Your task to perform on an android device: see creations saved in the google photos Image 0: 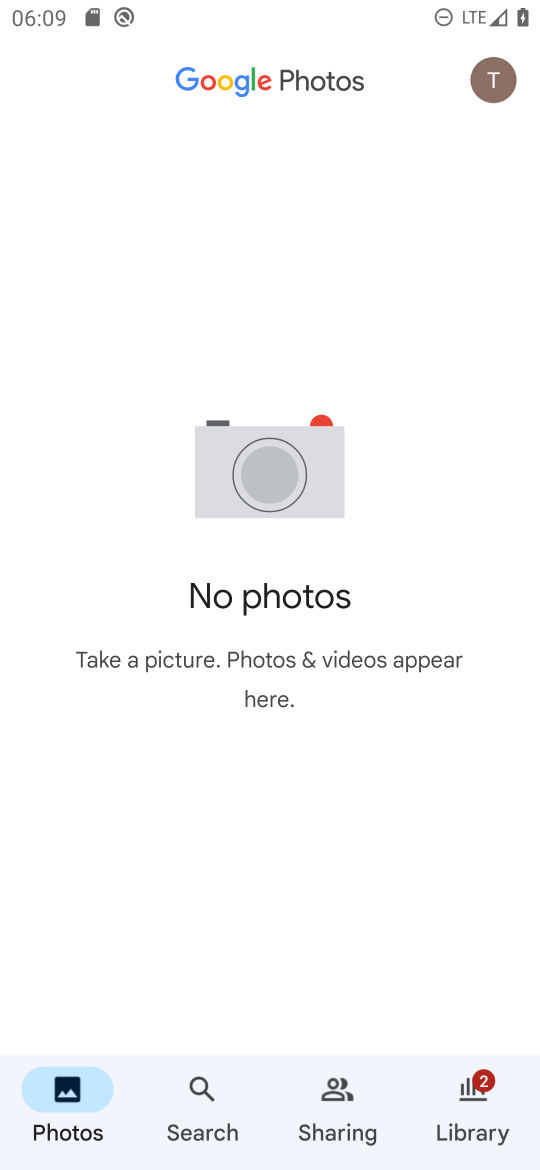
Step 0: press home button
Your task to perform on an android device: see creations saved in the google photos Image 1: 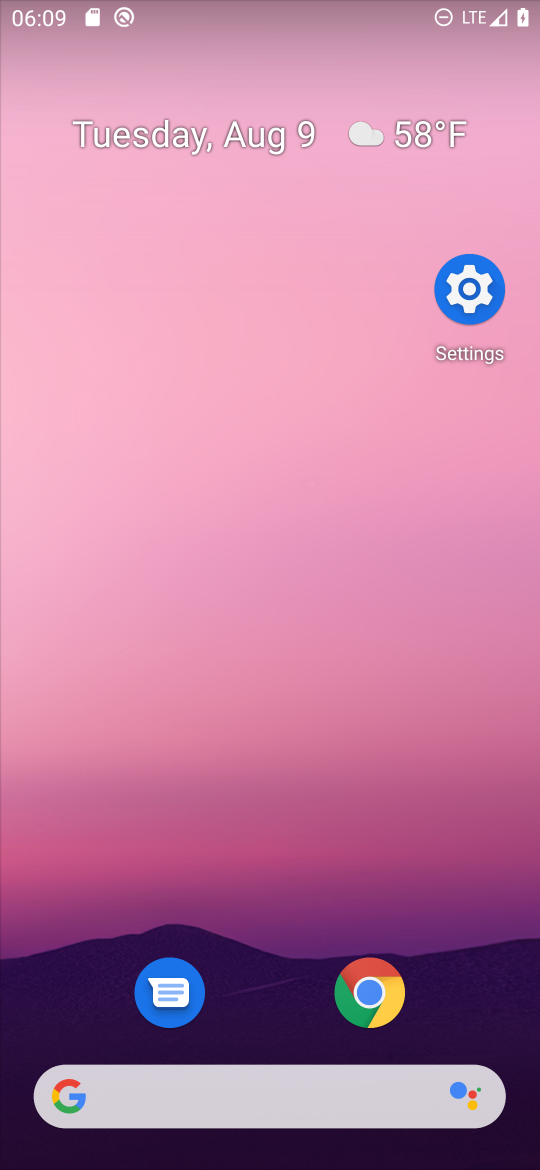
Step 1: drag from (202, 1062) to (295, 122)
Your task to perform on an android device: see creations saved in the google photos Image 2: 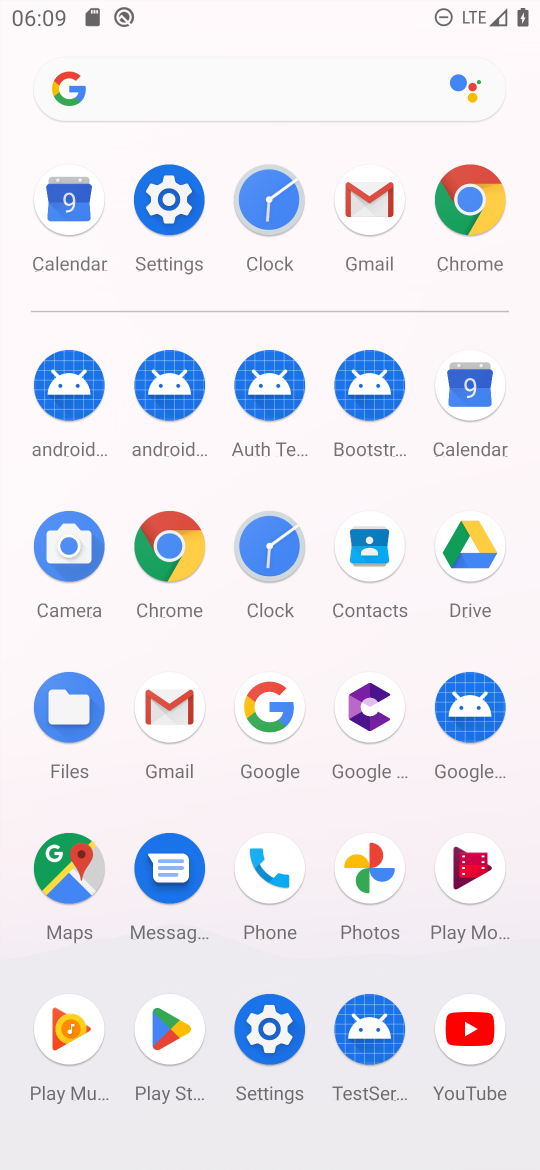
Step 2: click (374, 863)
Your task to perform on an android device: see creations saved in the google photos Image 3: 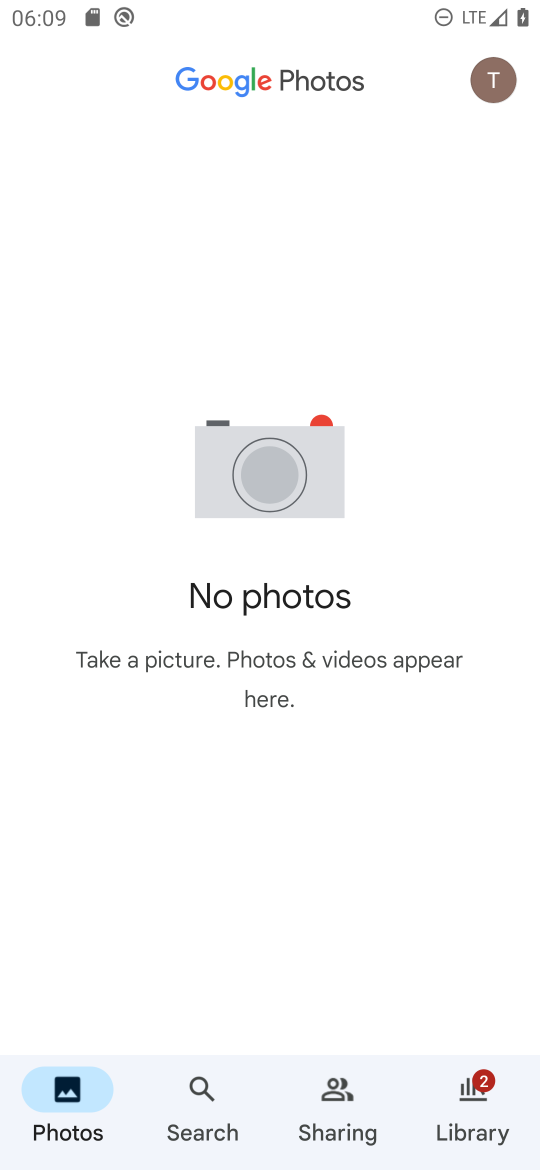
Step 3: click (477, 1108)
Your task to perform on an android device: see creations saved in the google photos Image 4: 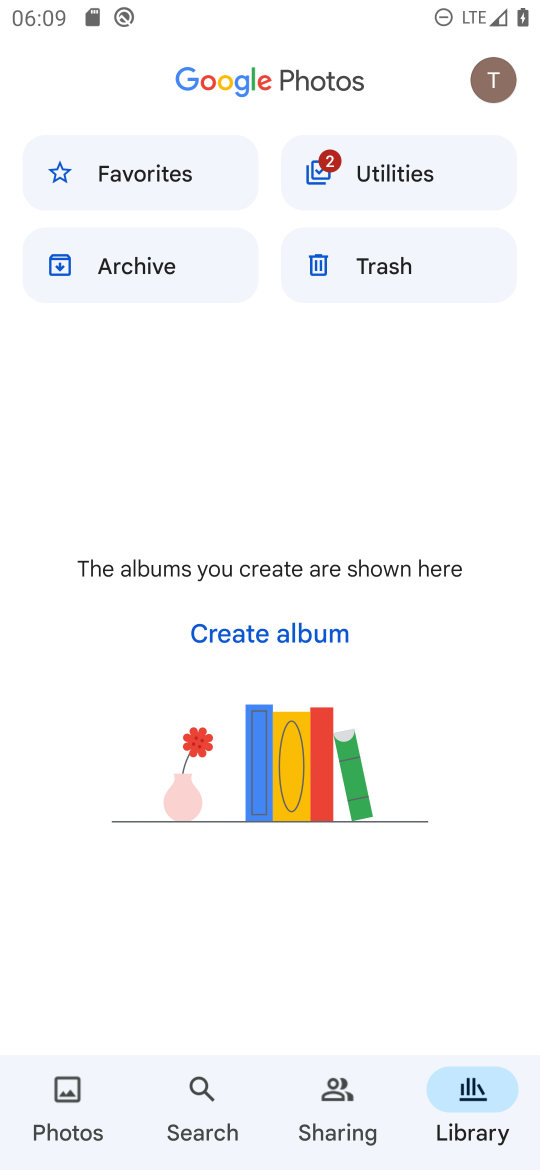
Step 4: click (339, 1090)
Your task to perform on an android device: see creations saved in the google photos Image 5: 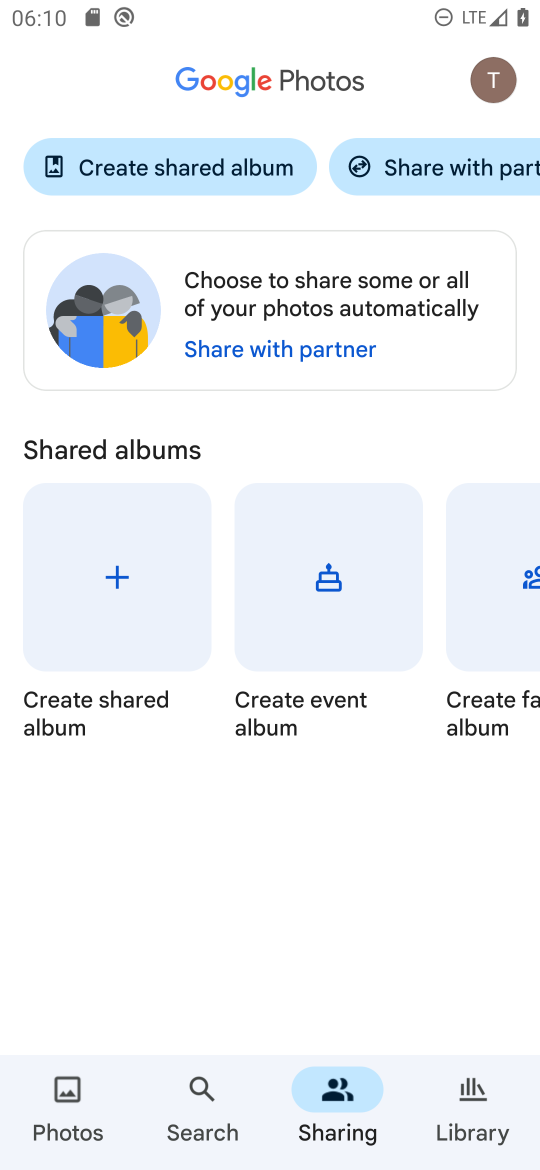
Step 5: task complete